Your task to perform on an android device: Open the Play Movies app and select the watchlist tab. Image 0: 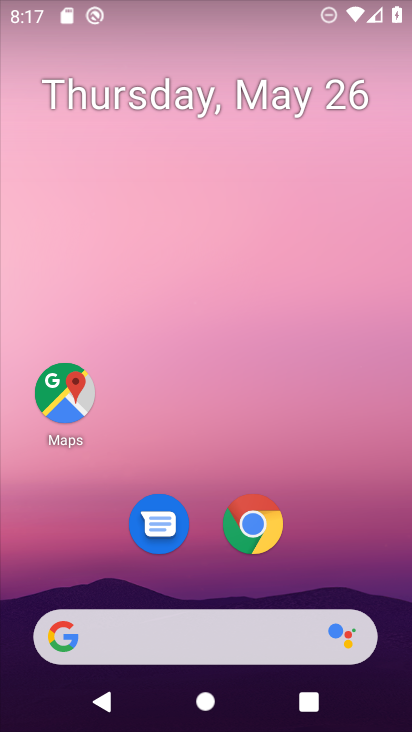
Step 0: drag from (219, 455) to (255, 41)
Your task to perform on an android device: Open the Play Movies app and select the watchlist tab. Image 1: 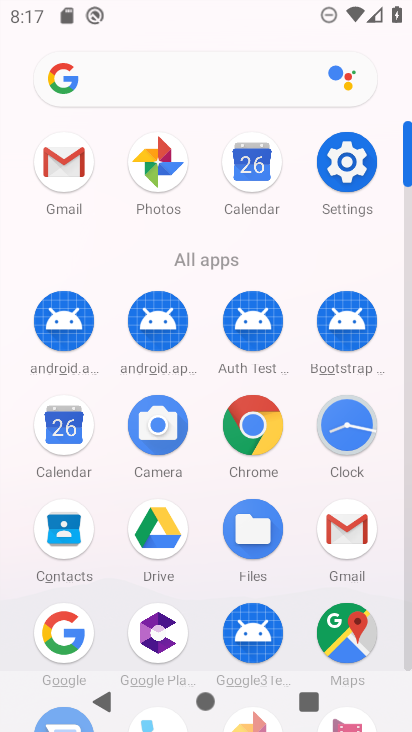
Step 1: drag from (286, 463) to (324, 101)
Your task to perform on an android device: Open the Play Movies app and select the watchlist tab. Image 2: 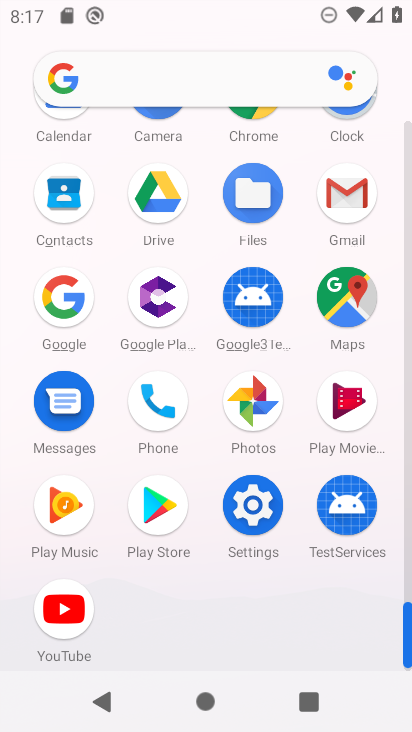
Step 2: click (346, 398)
Your task to perform on an android device: Open the Play Movies app and select the watchlist tab. Image 3: 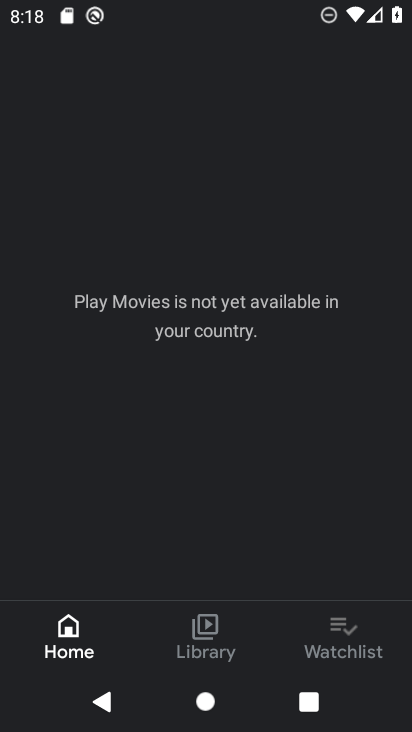
Step 3: click (367, 641)
Your task to perform on an android device: Open the Play Movies app and select the watchlist tab. Image 4: 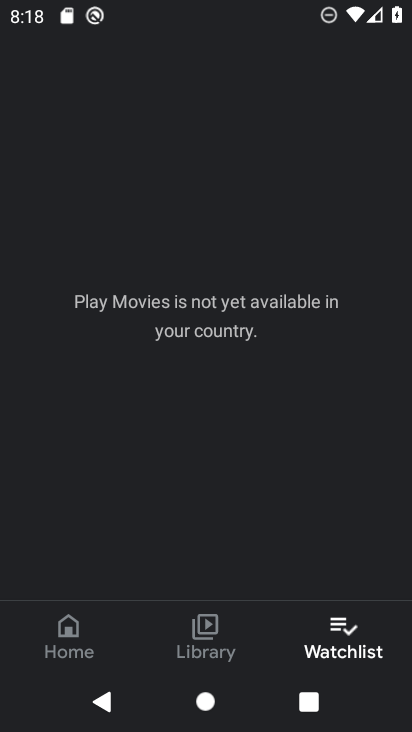
Step 4: task complete